Your task to perform on an android device: Open calendar and show me the third week of next month Image 0: 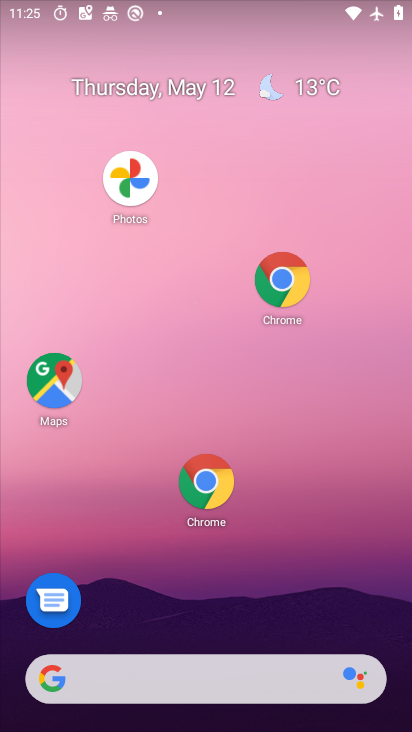
Step 0: drag from (378, 609) to (129, 169)
Your task to perform on an android device: Open calendar and show me the third week of next month Image 1: 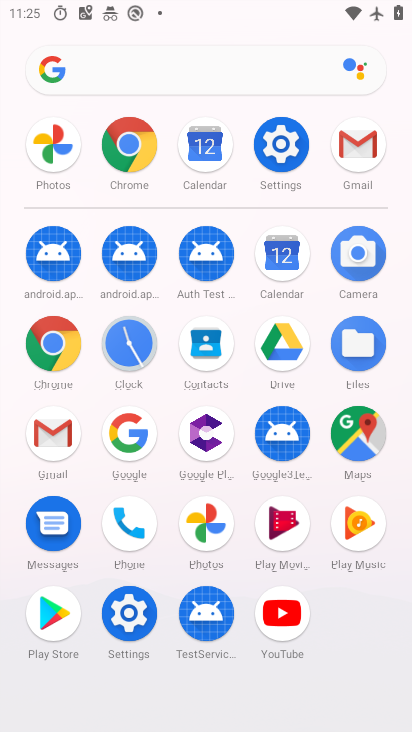
Step 1: click (264, 253)
Your task to perform on an android device: Open calendar and show me the third week of next month Image 2: 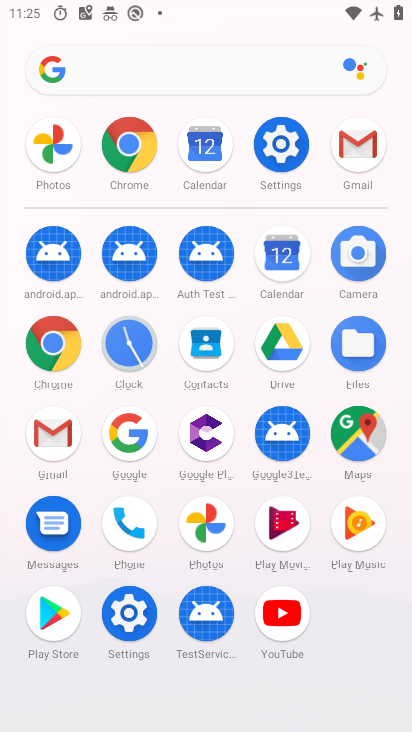
Step 2: click (264, 253)
Your task to perform on an android device: Open calendar and show me the third week of next month Image 3: 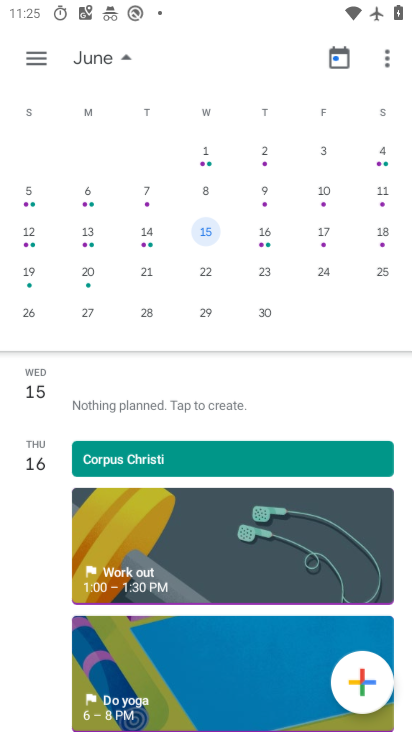
Step 3: click (264, 253)
Your task to perform on an android device: Open calendar and show me the third week of next month Image 4: 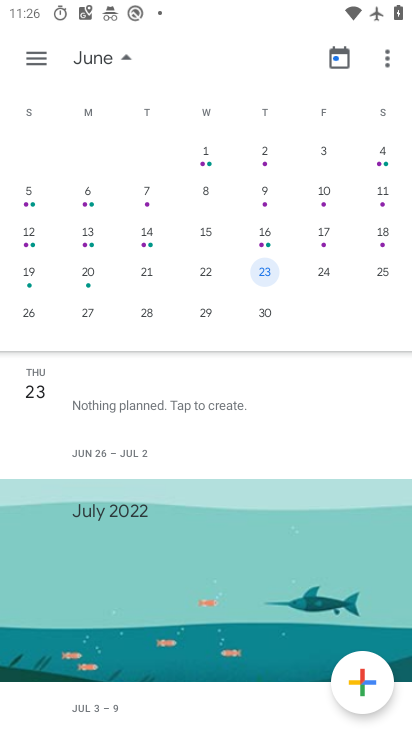
Step 4: click (220, 223)
Your task to perform on an android device: Open calendar and show me the third week of next month Image 5: 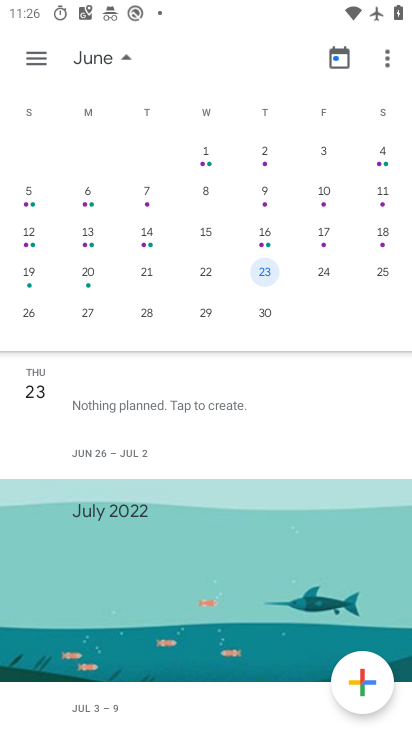
Step 5: click (208, 228)
Your task to perform on an android device: Open calendar and show me the third week of next month Image 6: 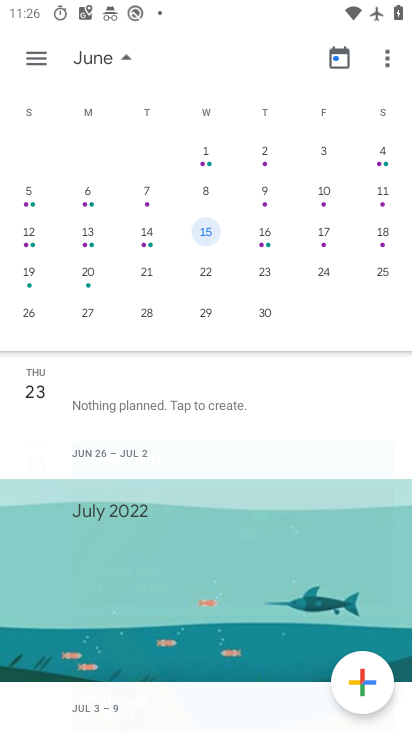
Step 6: click (208, 228)
Your task to perform on an android device: Open calendar and show me the third week of next month Image 7: 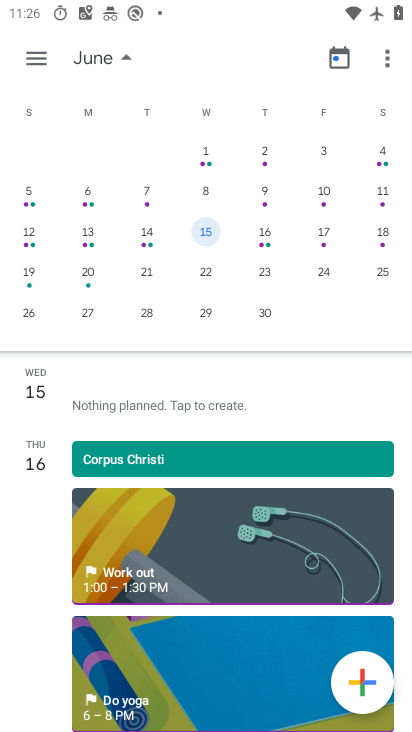
Step 7: task complete